Your task to perform on an android device: Go to battery settings Image 0: 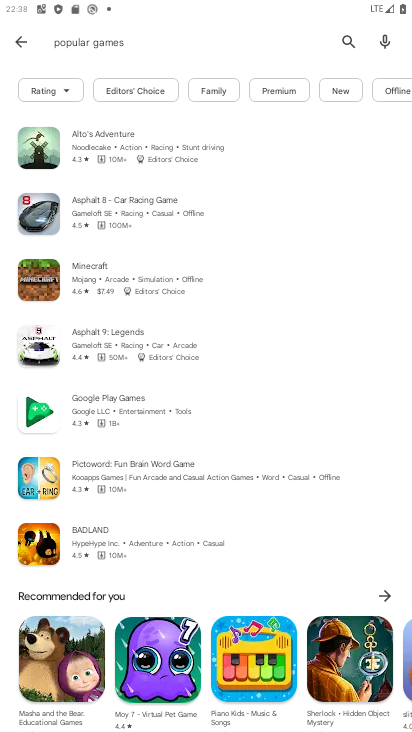
Step 0: press home button
Your task to perform on an android device: Go to battery settings Image 1: 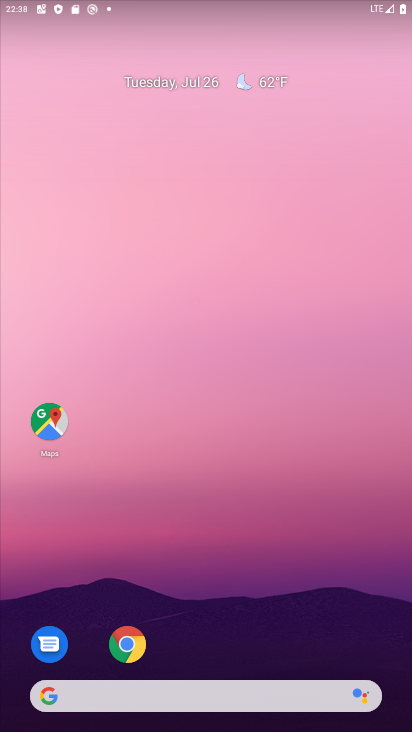
Step 1: drag from (239, 647) to (231, 27)
Your task to perform on an android device: Go to battery settings Image 2: 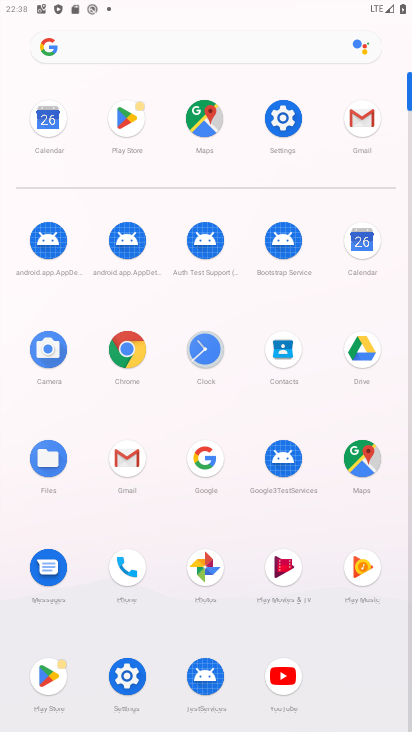
Step 2: click (276, 119)
Your task to perform on an android device: Go to battery settings Image 3: 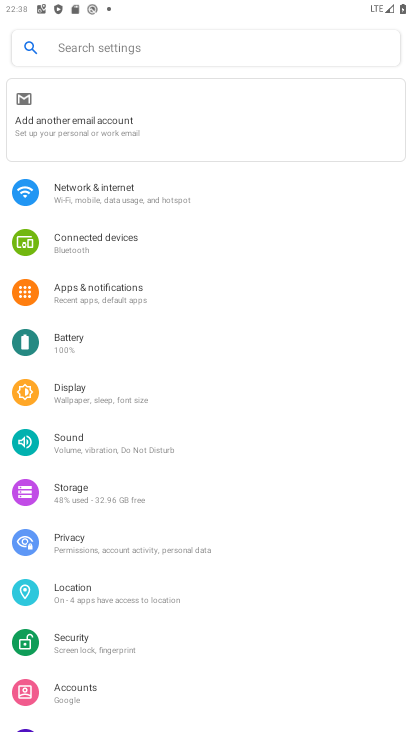
Step 3: click (67, 345)
Your task to perform on an android device: Go to battery settings Image 4: 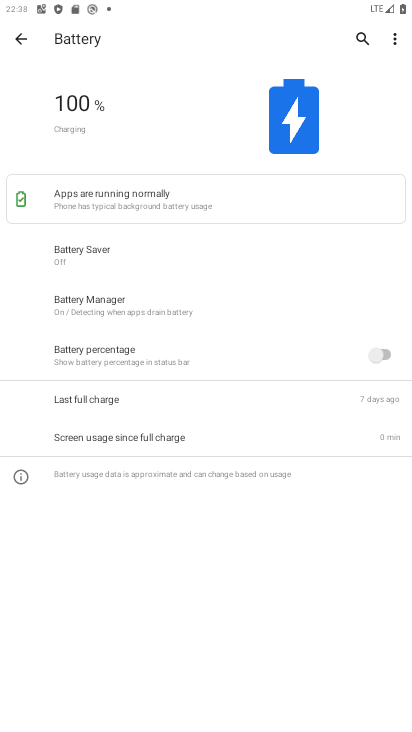
Step 4: task complete